Your task to perform on an android device: Open battery settings Image 0: 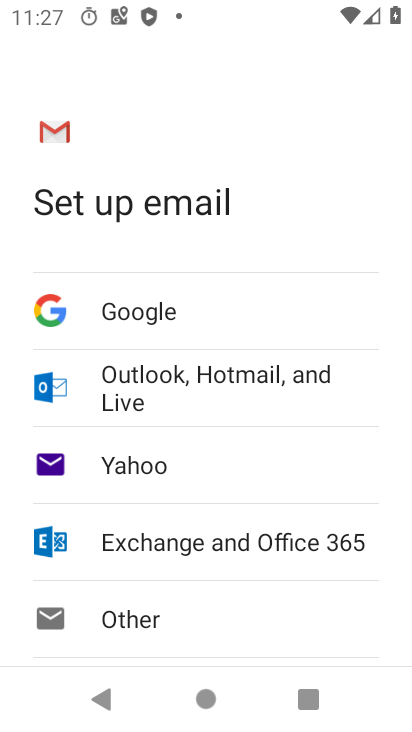
Step 0: press home button
Your task to perform on an android device: Open battery settings Image 1: 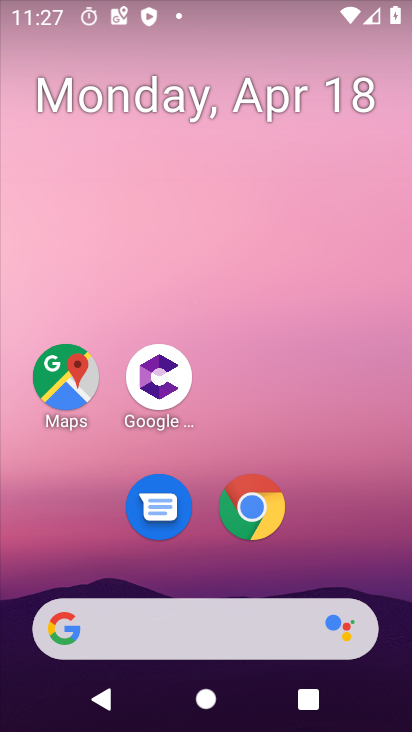
Step 1: drag from (236, 658) to (250, 264)
Your task to perform on an android device: Open battery settings Image 2: 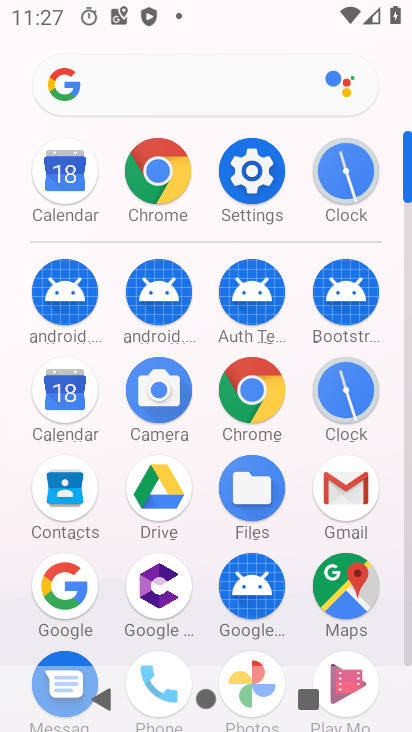
Step 2: click (251, 183)
Your task to perform on an android device: Open battery settings Image 3: 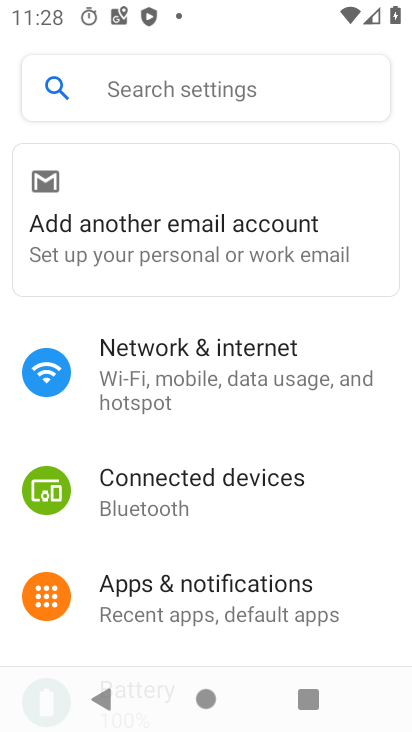
Step 3: click (189, 95)
Your task to perform on an android device: Open battery settings Image 4: 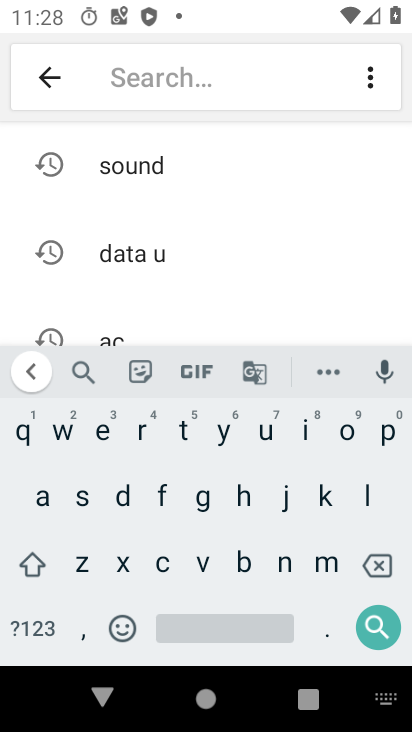
Step 4: click (239, 558)
Your task to perform on an android device: Open battery settings Image 5: 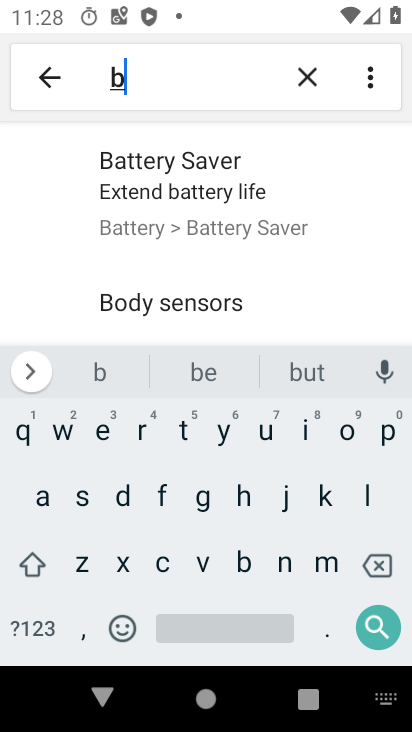
Step 5: click (45, 492)
Your task to perform on an android device: Open battery settings Image 6: 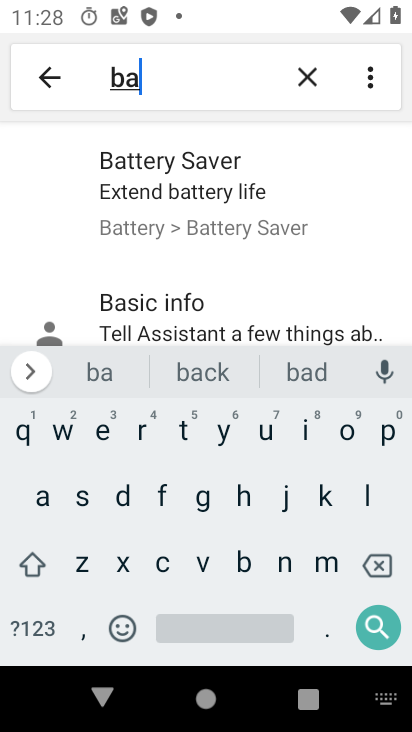
Step 6: click (186, 448)
Your task to perform on an android device: Open battery settings Image 7: 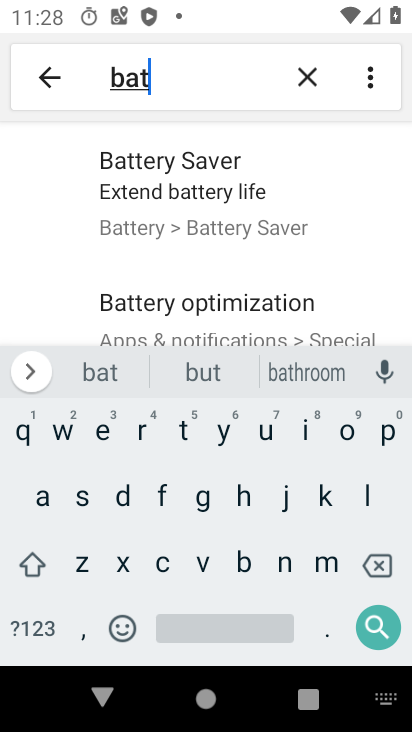
Step 7: click (186, 448)
Your task to perform on an android device: Open battery settings Image 8: 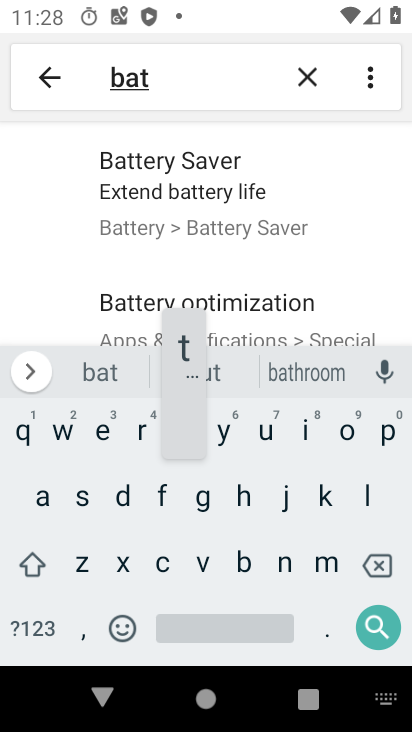
Step 8: click (182, 438)
Your task to perform on an android device: Open battery settings Image 9: 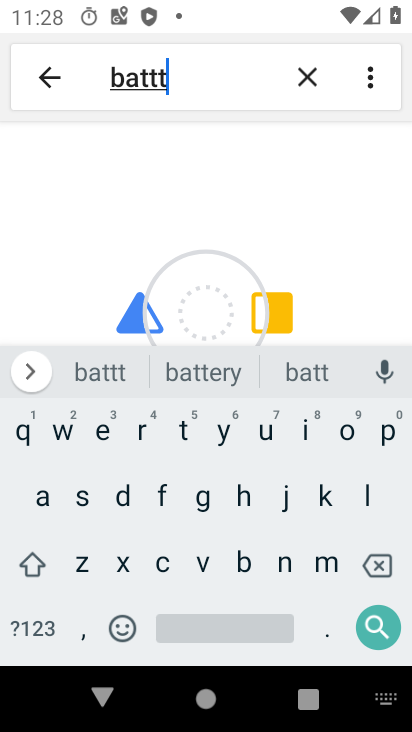
Step 9: click (182, 438)
Your task to perform on an android device: Open battery settings Image 10: 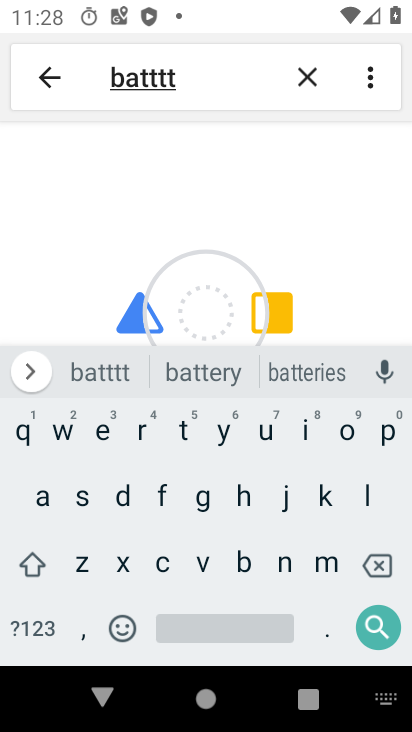
Step 10: click (376, 554)
Your task to perform on an android device: Open battery settings Image 11: 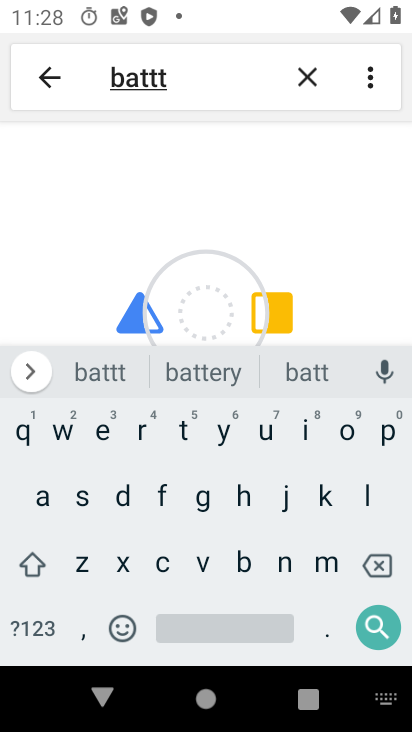
Step 11: click (376, 550)
Your task to perform on an android device: Open battery settings Image 12: 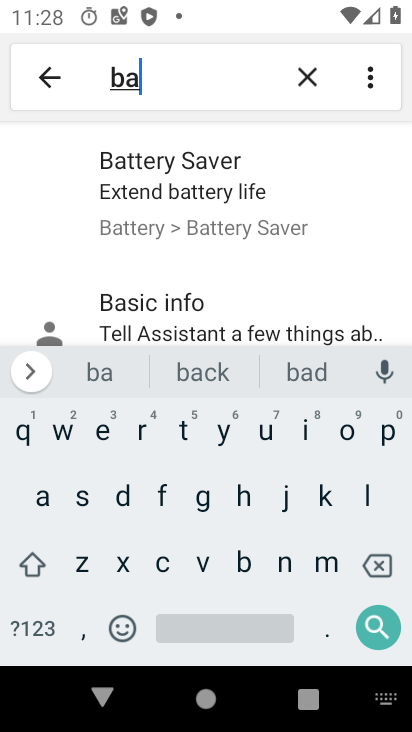
Step 12: click (182, 434)
Your task to perform on an android device: Open battery settings Image 13: 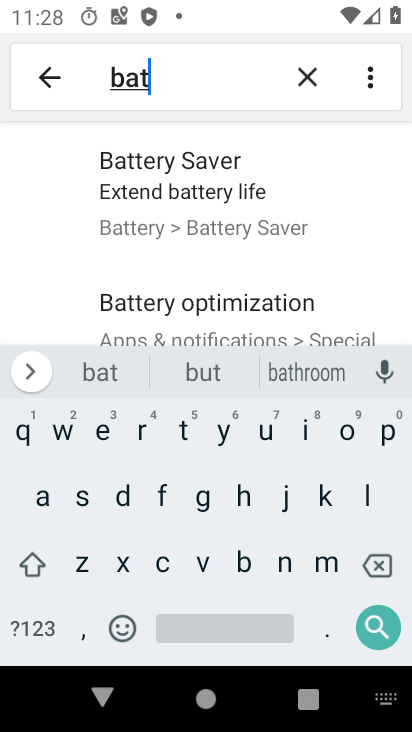
Step 13: click (182, 420)
Your task to perform on an android device: Open battery settings Image 14: 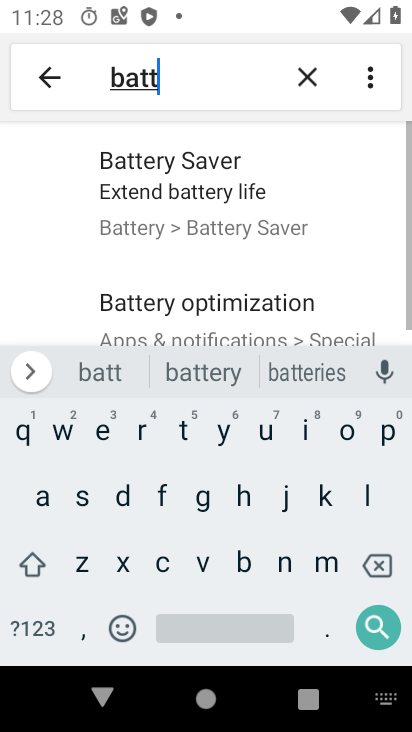
Step 14: click (184, 373)
Your task to perform on an android device: Open battery settings Image 15: 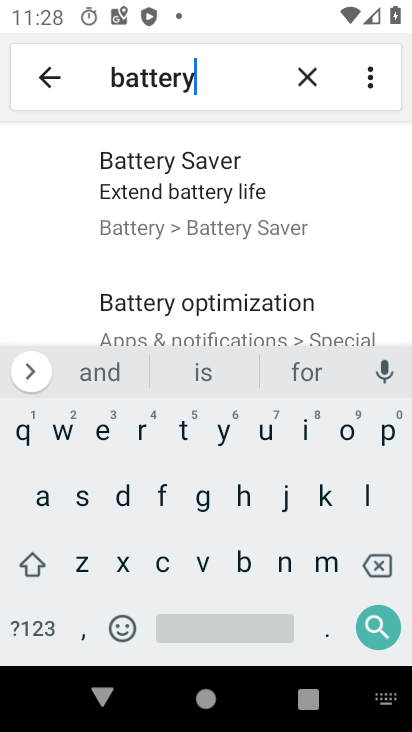
Step 15: drag from (193, 302) to (178, 229)
Your task to perform on an android device: Open battery settings Image 16: 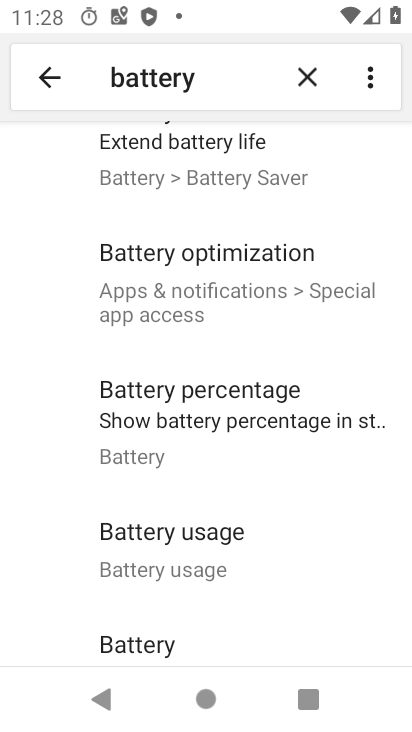
Step 16: click (118, 630)
Your task to perform on an android device: Open battery settings Image 17: 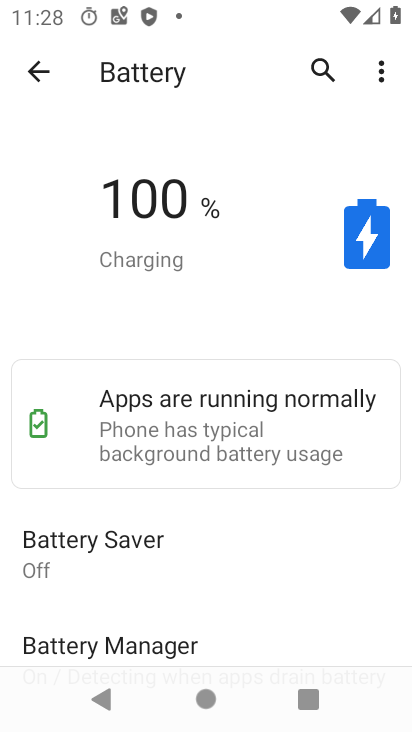
Step 17: task complete